Your task to perform on an android device: turn on showing notifications on the lock screen Image 0: 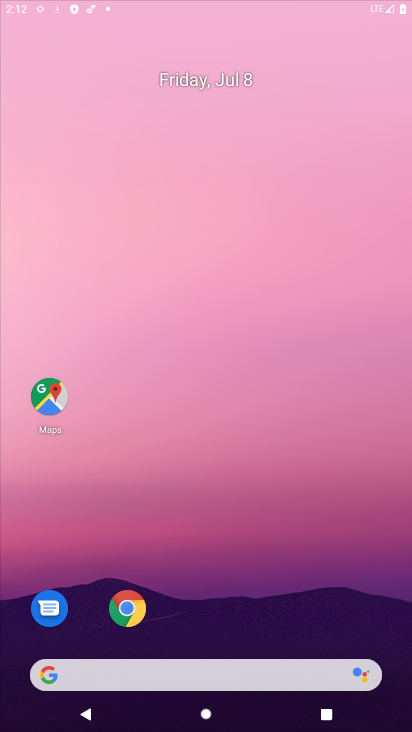
Step 0: drag from (223, 607) to (265, 149)
Your task to perform on an android device: turn on showing notifications on the lock screen Image 1: 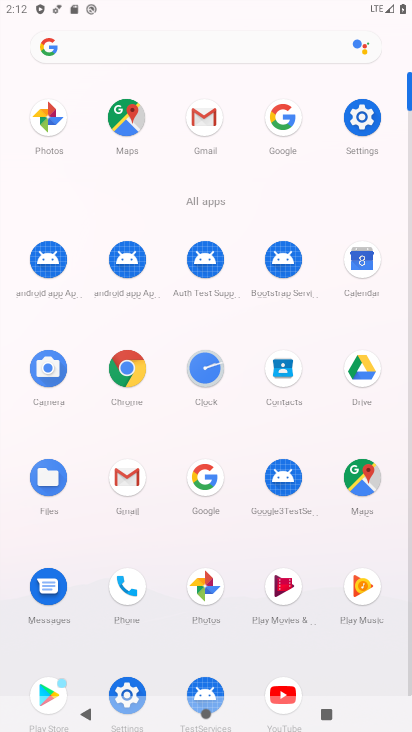
Step 1: click (365, 115)
Your task to perform on an android device: turn on showing notifications on the lock screen Image 2: 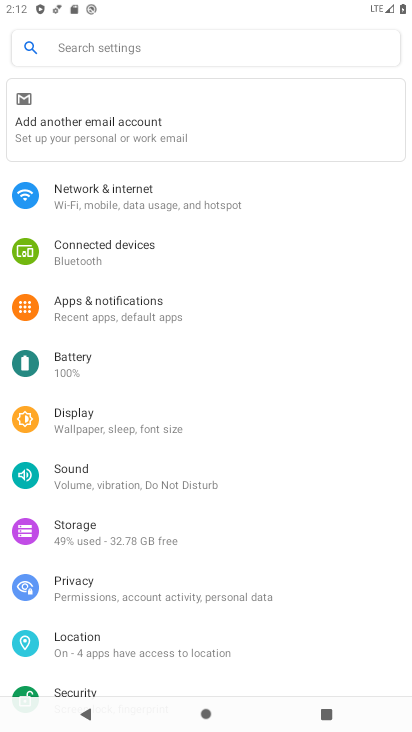
Step 2: click (134, 321)
Your task to perform on an android device: turn on showing notifications on the lock screen Image 3: 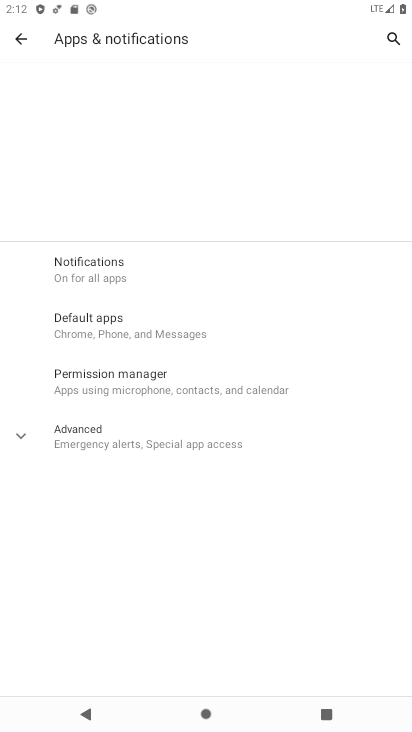
Step 3: click (123, 264)
Your task to perform on an android device: turn on showing notifications on the lock screen Image 4: 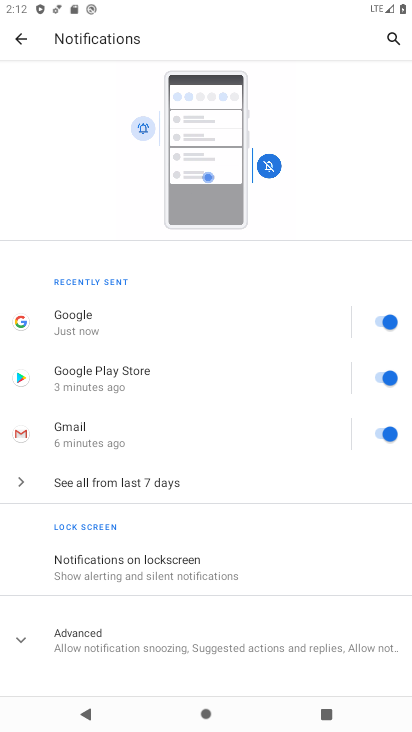
Step 4: click (126, 563)
Your task to perform on an android device: turn on showing notifications on the lock screen Image 5: 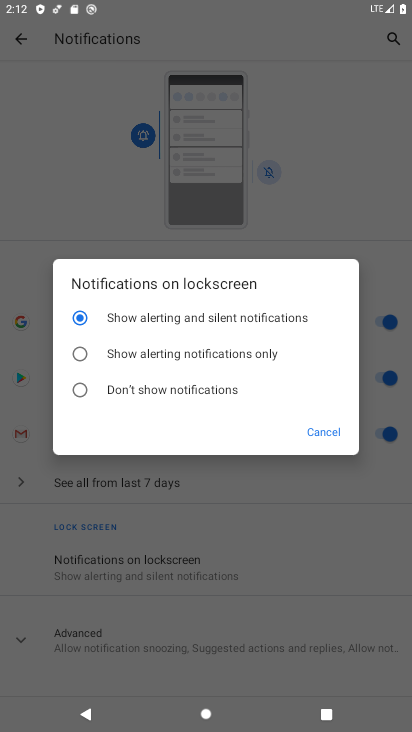
Step 5: task complete